Your task to perform on an android device: change the clock display to show seconds Image 0: 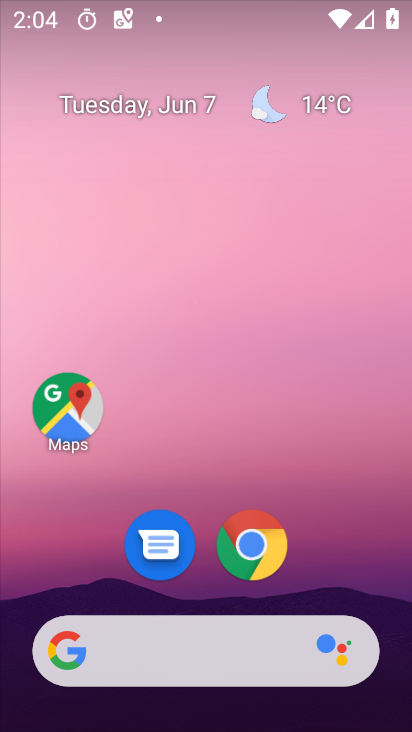
Step 0: press home button
Your task to perform on an android device: change the clock display to show seconds Image 1: 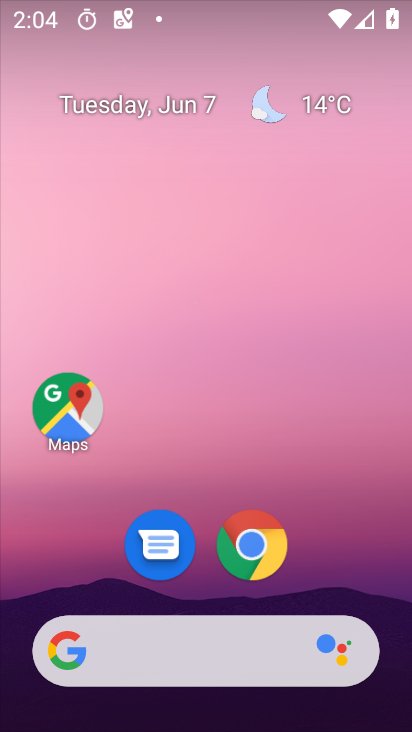
Step 1: drag from (354, 573) to (261, 0)
Your task to perform on an android device: change the clock display to show seconds Image 2: 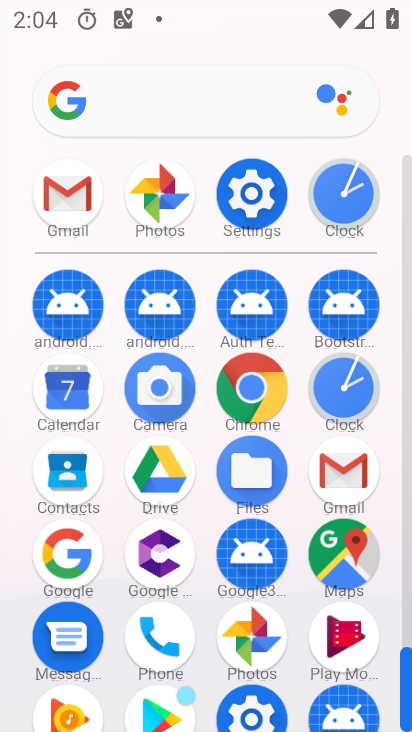
Step 2: click (348, 371)
Your task to perform on an android device: change the clock display to show seconds Image 3: 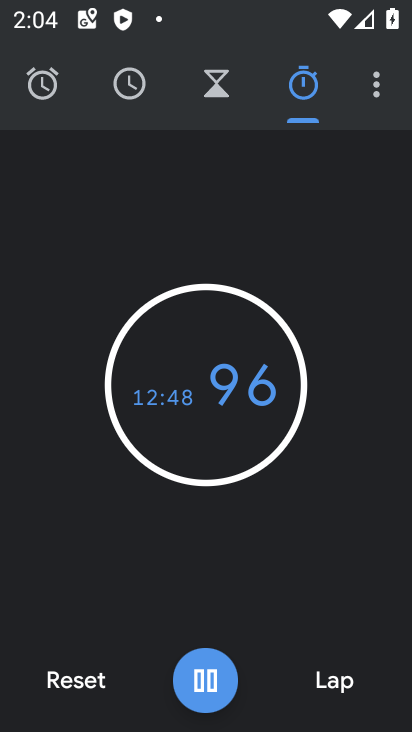
Step 3: click (375, 82)
Your task to perform on an android device: change the clock display to show seconds Image 4: 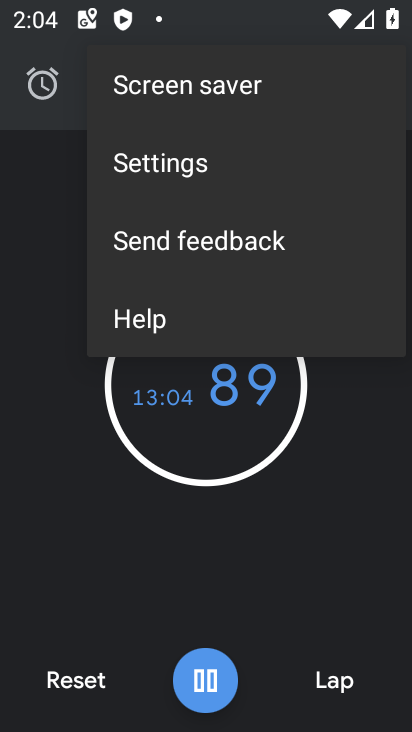
Step 4: click (198, 160)
Your task to perform on an android device: change the clock display to show seconds Image 5: 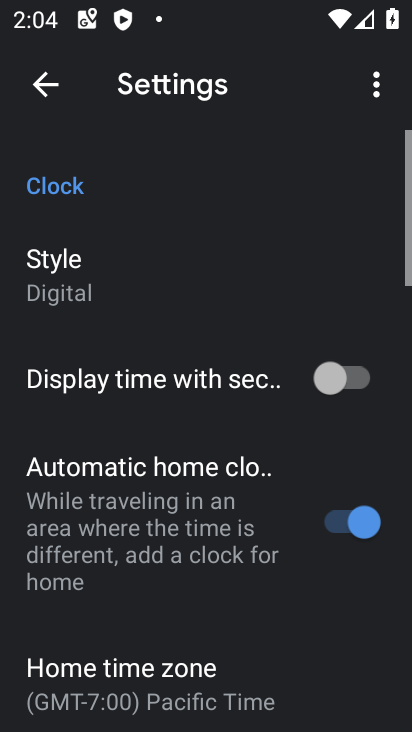
Step 5: click (347, 391)
Your task to perform on an android device: change the clock display to show seconds Image 6: 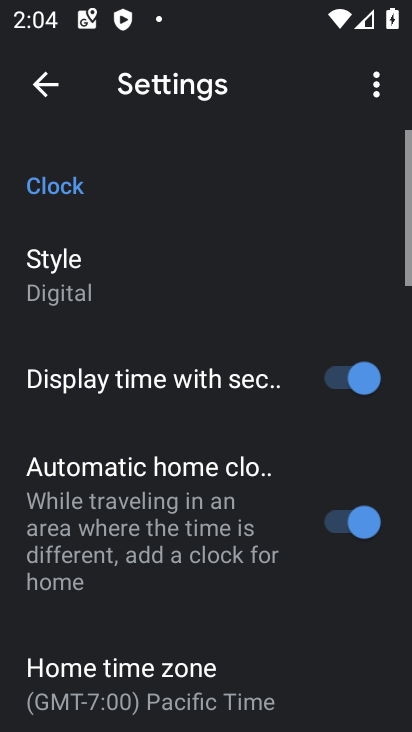
Step 6: task complete